Your task to perform on an android device: open chrome privacy settings Image 0: 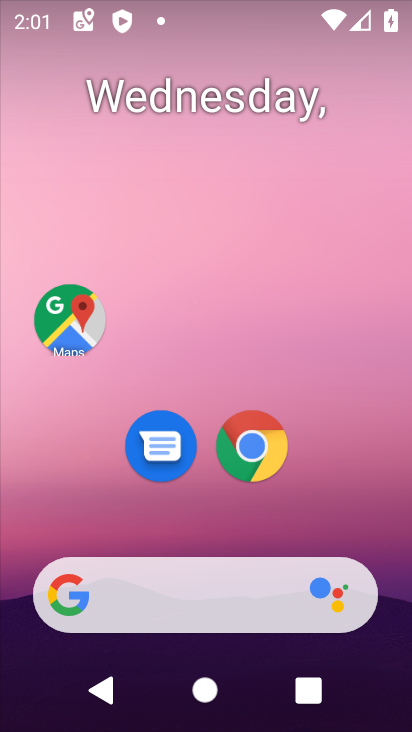
Step 0: drag from (191, 581) to (264, 112)
Your task to perform on an android device: open chrome privacy settings Image 1: 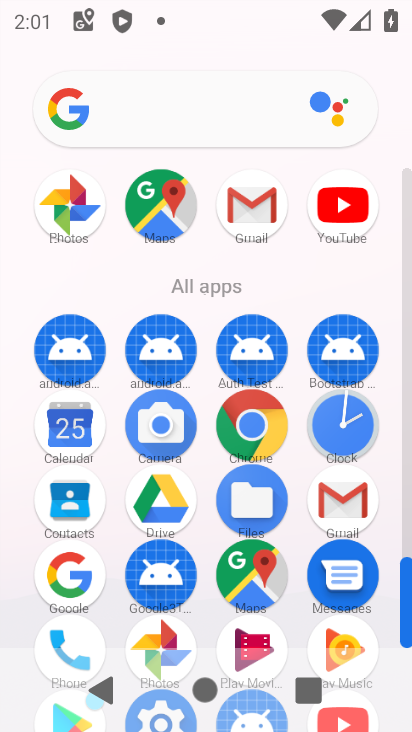
Step 1: drag from (212, 608) to (239, 204)
Your task to perform on an android device: open chrome privacy settings Image 2: 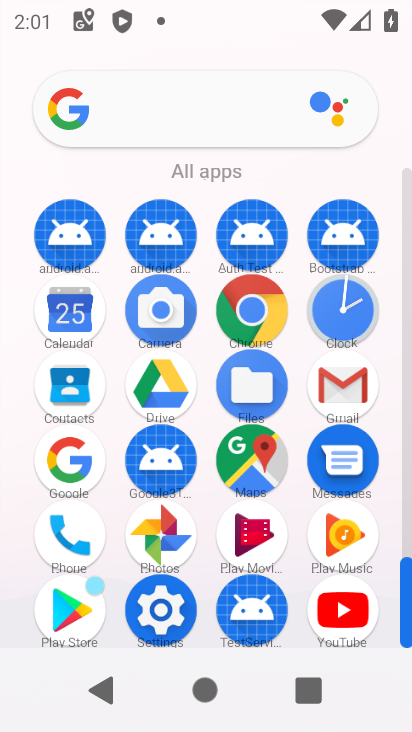
Step 2: click (251, 318)
Your task to perform on an android device: open chrome privacy settings Image 3: 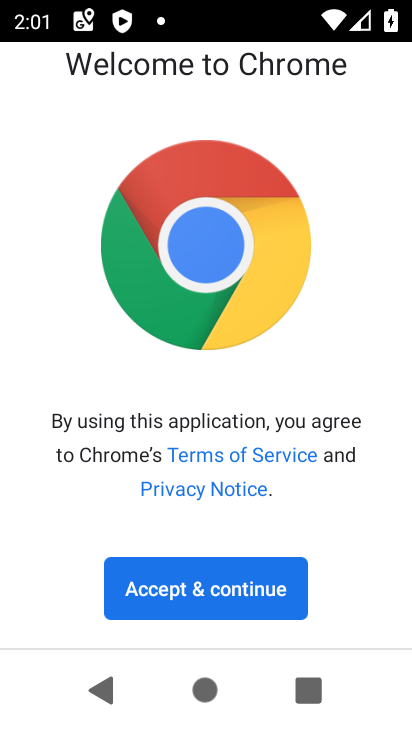
Step 3: click (246, 605)
Your task to perform on an android device: open chrome privacy settings Image 4: 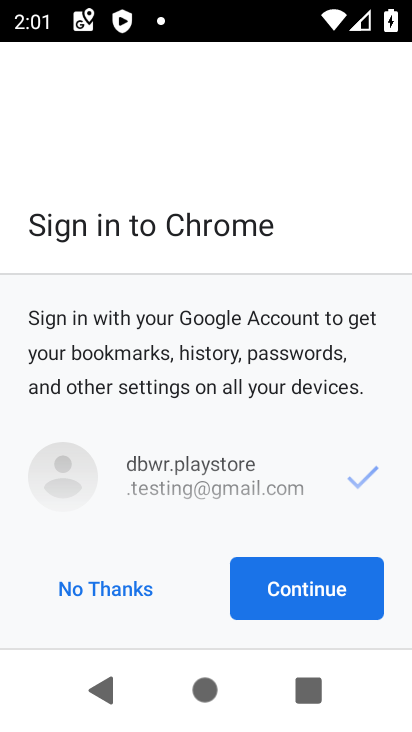
Step 4: click (268, 597)
Your task to perform on an android device: open chrome privacy settings Image 5: 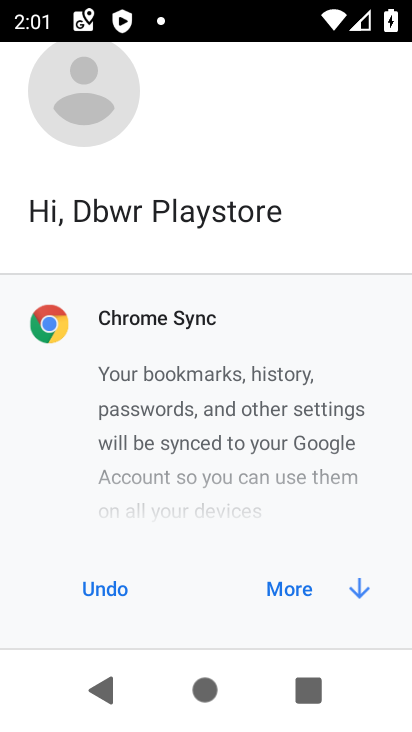
Step 5: click (268, 597)
Your task to perform on an android device: open chrome privacy settings Image 6: 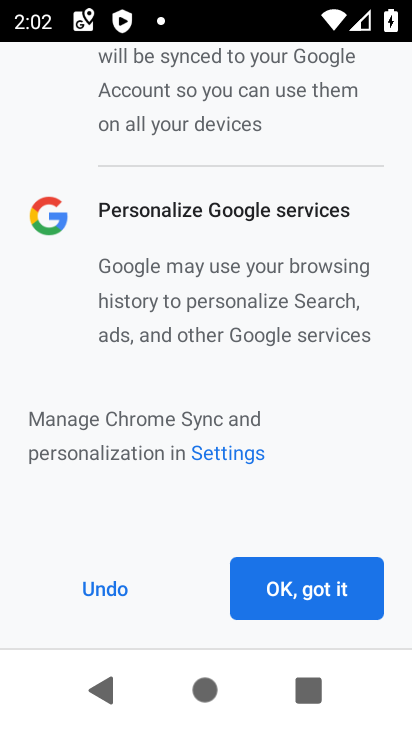
Step 6: click (291, 587)
Your task to perform on an android device: open chrome privacy settings Image 7: 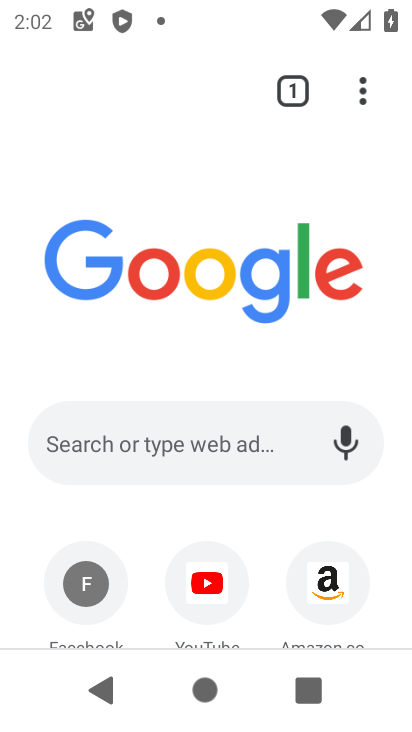
Step 7: drag from (365, 80) to (118, 475)
Your task to perform on an android device: open chrome privacy settings Image 8: 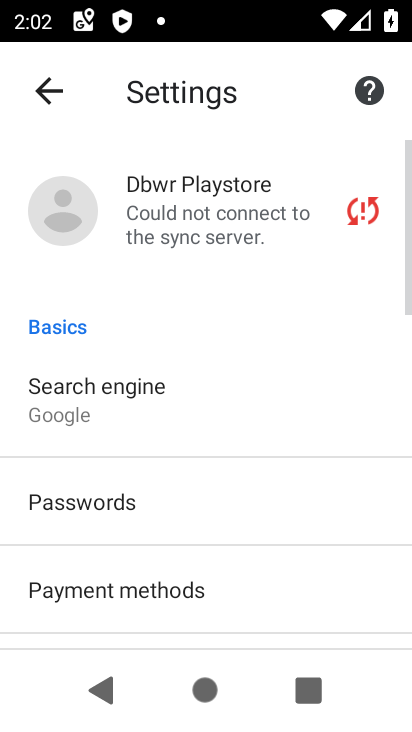
Step 8: drag from (118, 475) to (171, 17)
Your task to perform on an android device: open chrome privacy settings Image 9: 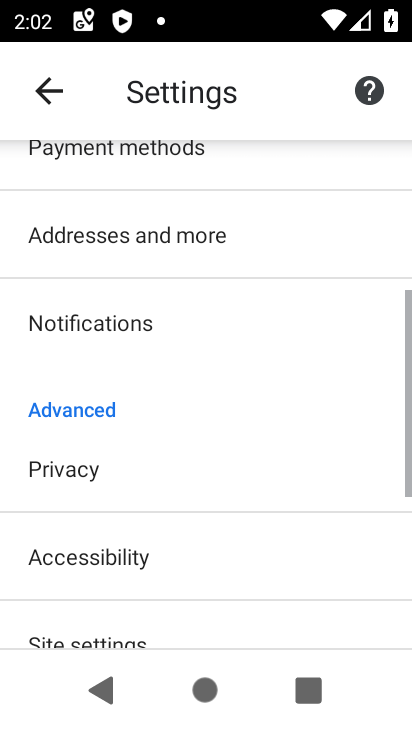
Step 9: click (97, 498)
Your task to perform on an android device: open chrome privacy settings Image 10: 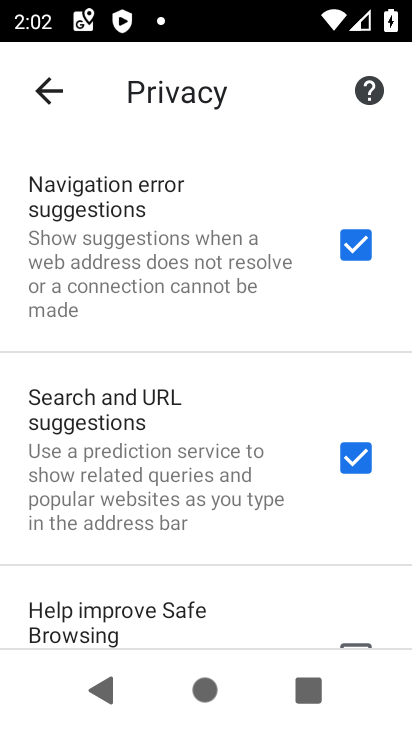
Step 10: task complete